Your task to perform on an android device: change the clock style Image 0: 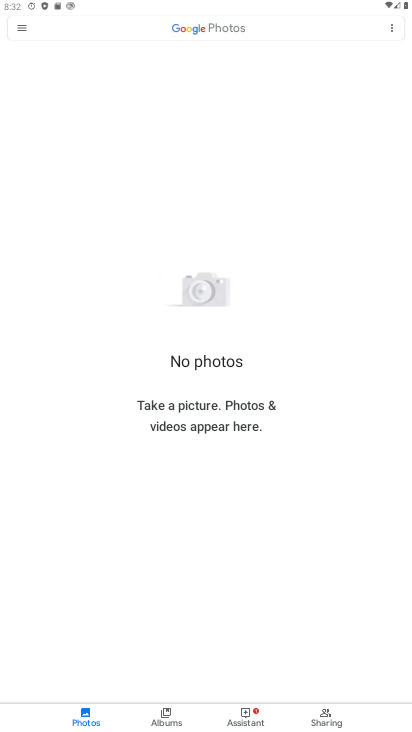
Step 0: press home button
Your task to perform on an android device: change the clock style Image 1: 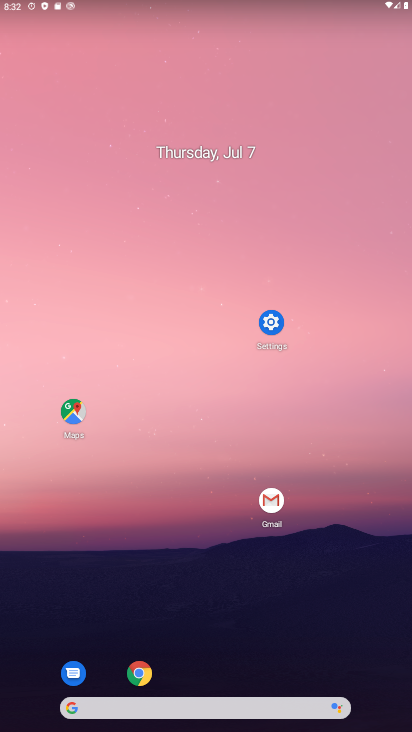
Step 1: drag from (394, 698) to (335, 63)
Your task to perform on an android device: change the clock style Image 2: 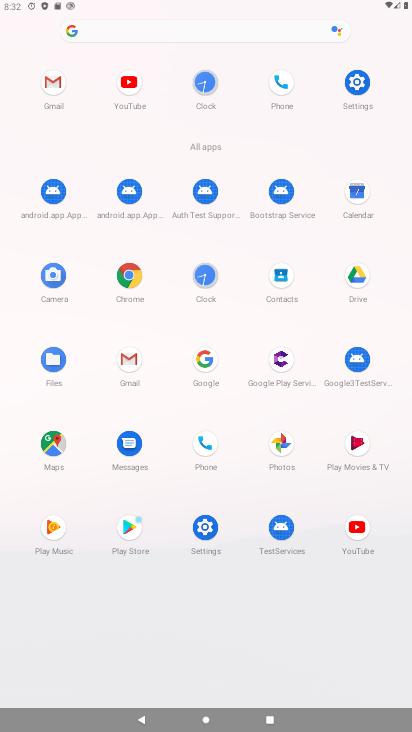
Step 2: click (196, 291)
Your task to perform on an android device: change the clock style Image 3: 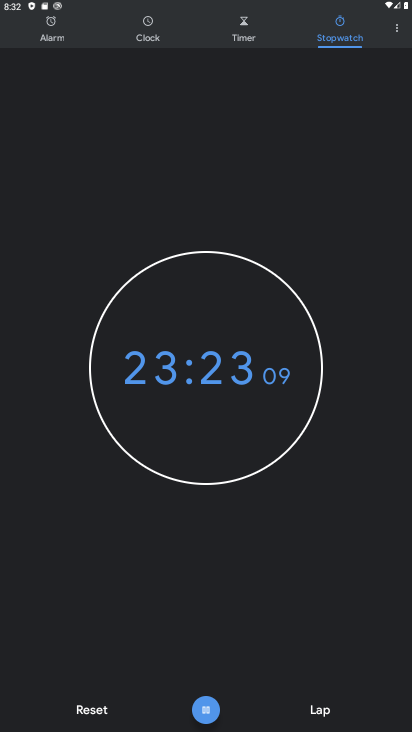
Step 3: click (395, 24)
Your task to perform on an android device: change the clock style Image 4: 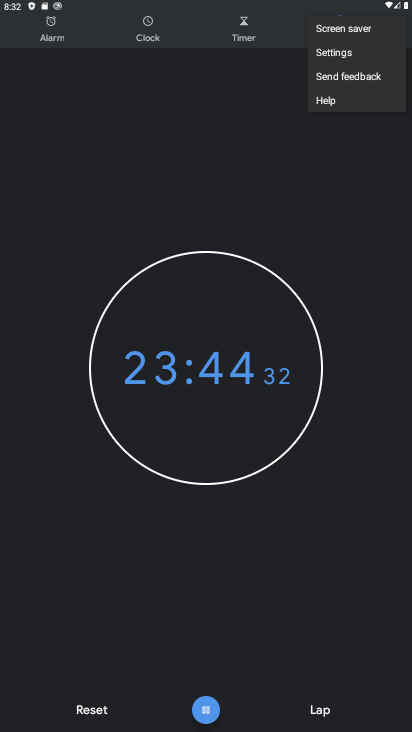
Step 4: click (353, 58)
Your task to perform on an android device: change the clock style Image 5: 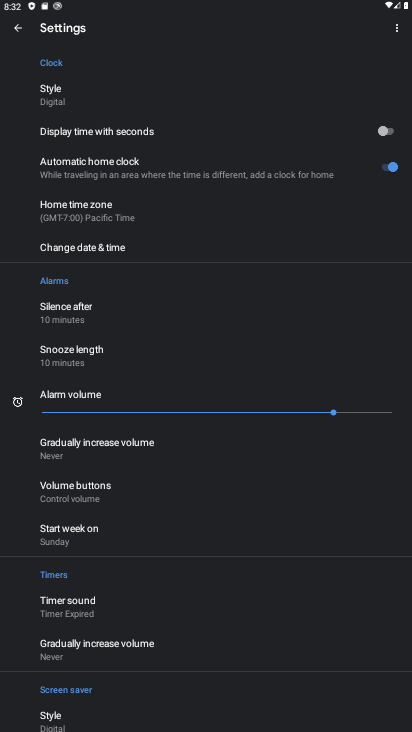
Step 5: click (53, 90)
Your task to perform on an android device: change the clock style Image 6: 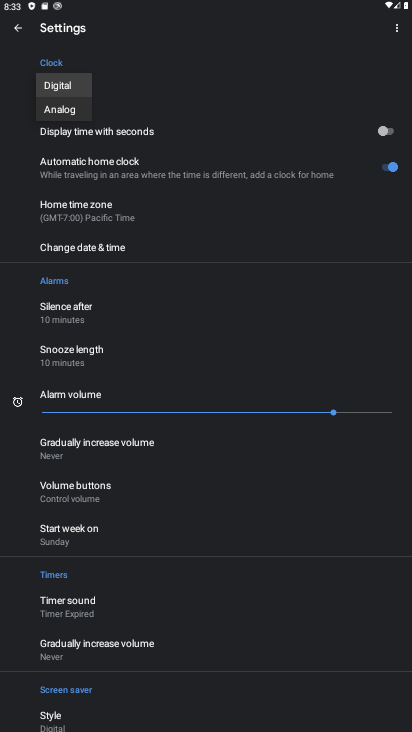
Step 6: click (57, 99)
Your task to perform on an android device: change the clock style Image 7: 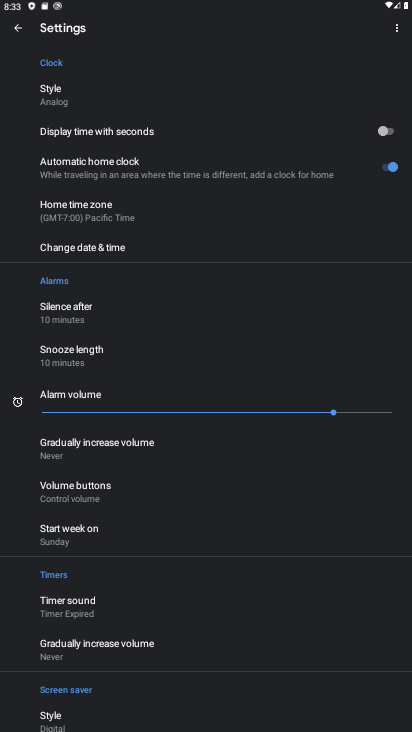
Step 7: task complete